Your task to perform on an android device: Open wifi settings Image 0: 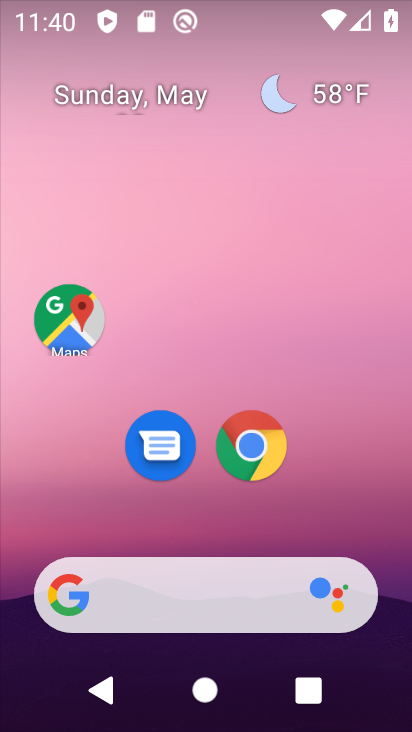
Step 0: drag from (209, 536) to (184, 5)
Your task to perform on an android device: Open wifi settings Image 1: 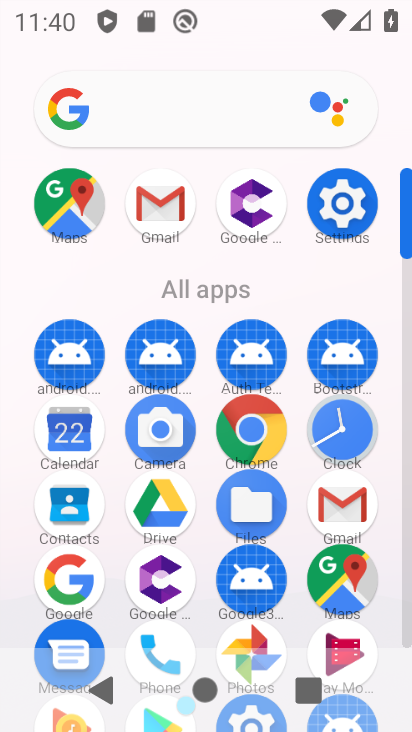
Step 1: drag from (249, 2) to (256, 511)
Your task to perform on an android device: Open wifi settings Image 2: 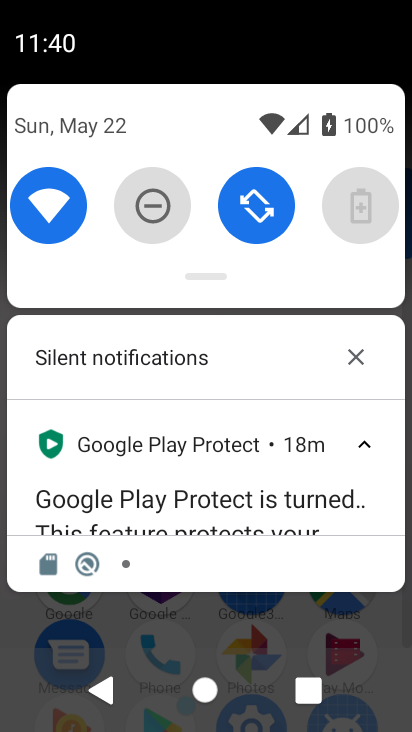
Step 2: drag from (226, 648) to (252, 144)
Your task to perform on an android device: Open wifi settings Image 3: 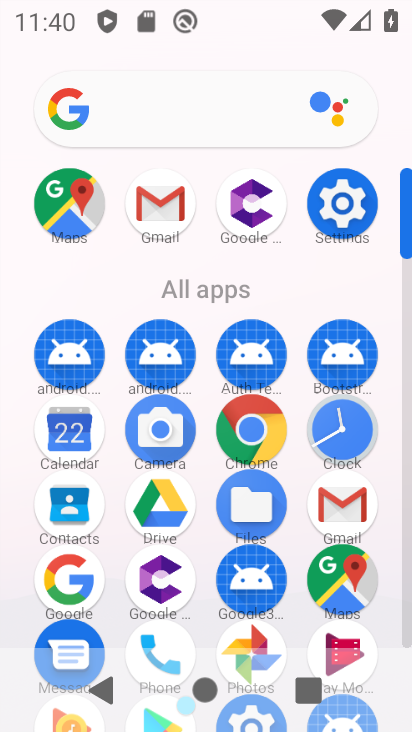
Step 3: click (343, 193)
Your task to perform on an android device: Open wifi settings Image 4: 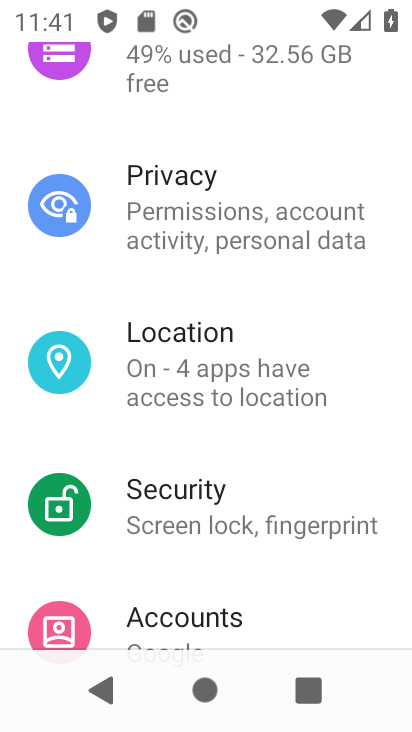
Step 4: drag from (212, 183) to (212, 670)
Your task to perform on an android device: Open wifi settings Image 5: 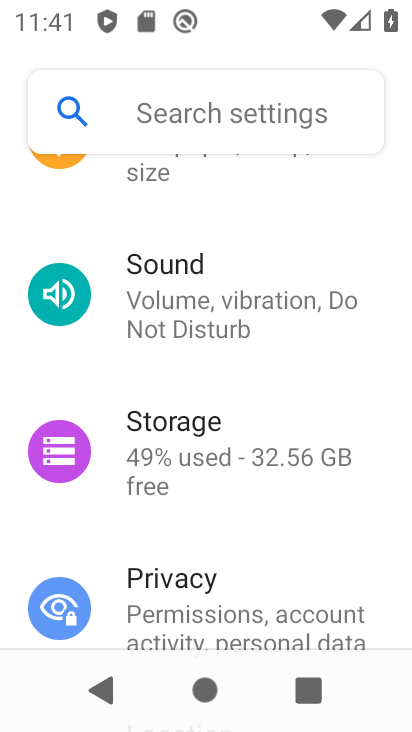
Step 5: drag from (199, 210) to (216, 725)
Your task to perform on an android device: Open wifi settings Image 6: 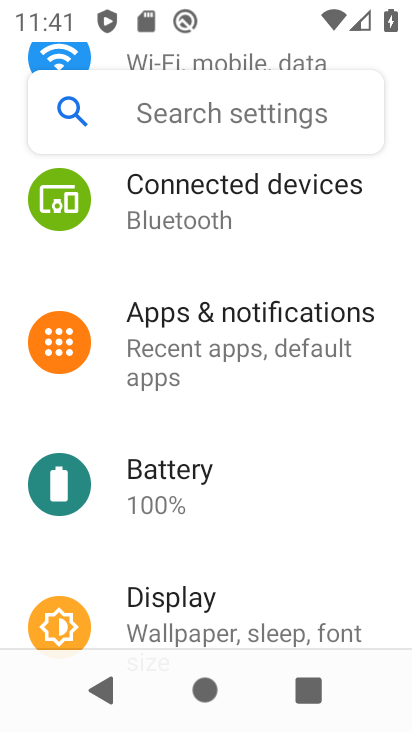
Step 6: drag from (187, 205) to (189, 721)
Your task to perform on an android device: Open wifi settings Image 7: 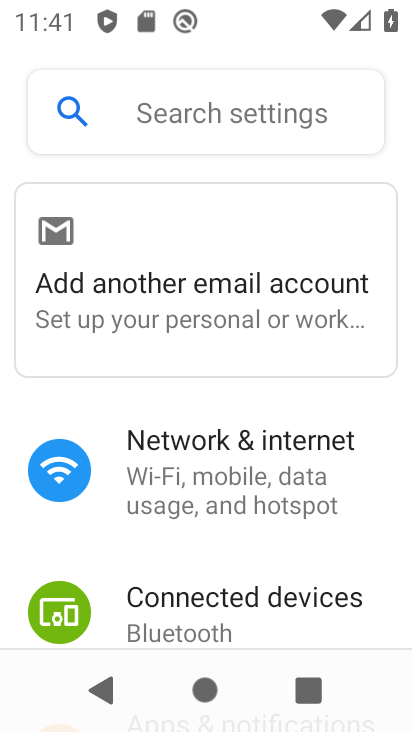
Step 7: click (183, 473)
Your task to perform on an android device: Open wifi settings Image 8: 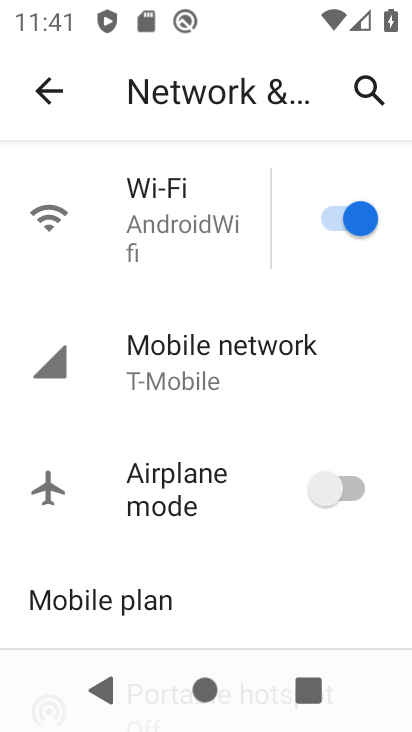
Step 8: click (195, 235)
Your task to perform on an android device: Open wifi settings Image 9: 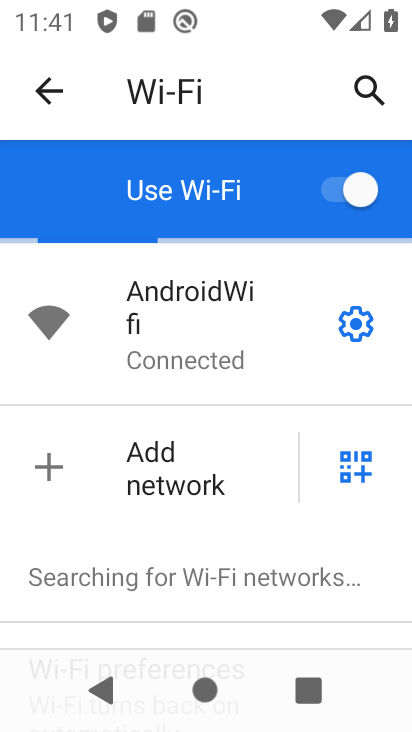
Step 9: task complete